Your task to perform on an android device: Open Amazon Image 0: 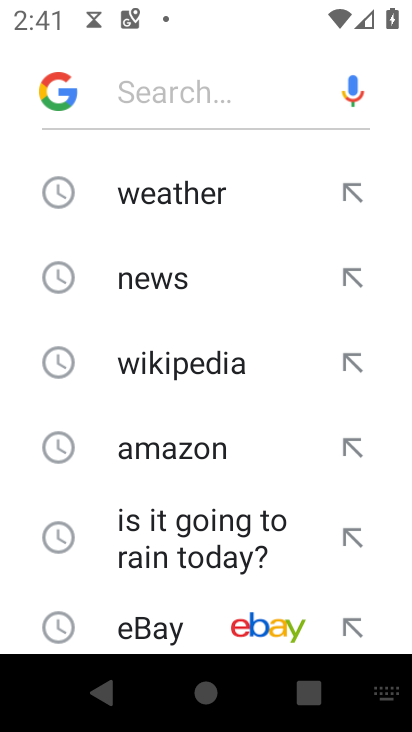
Step 0: press home button
Your task to perform on an android device: Open Amazon Image 1: 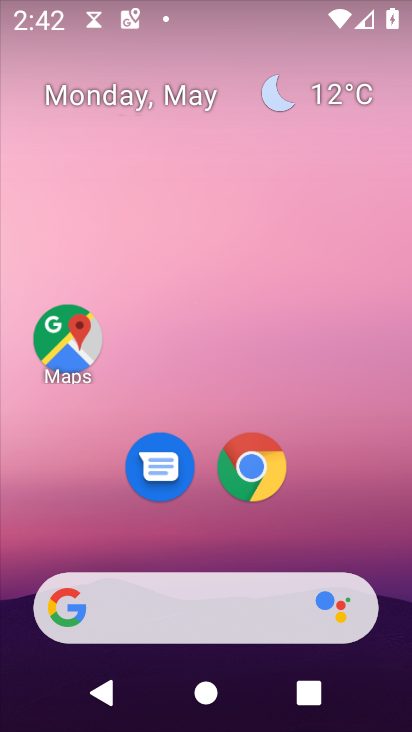
Step 1: click (253, 473)
Your task to perform on an android device: Open Amazon Image 2: 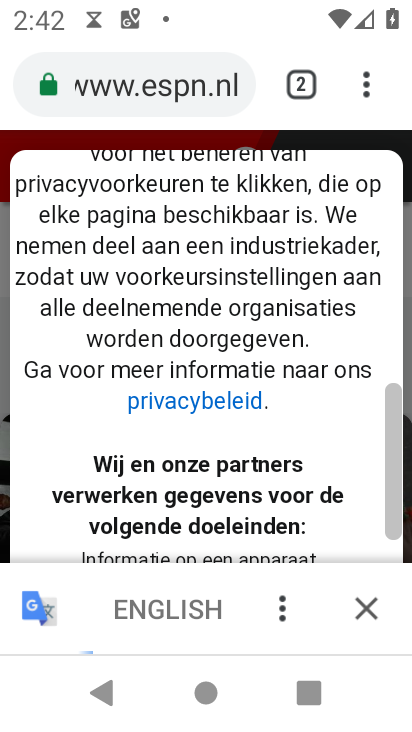
Step 2: click (370, 618)
Your task to perform on an android device: Open Amazon Image 3: 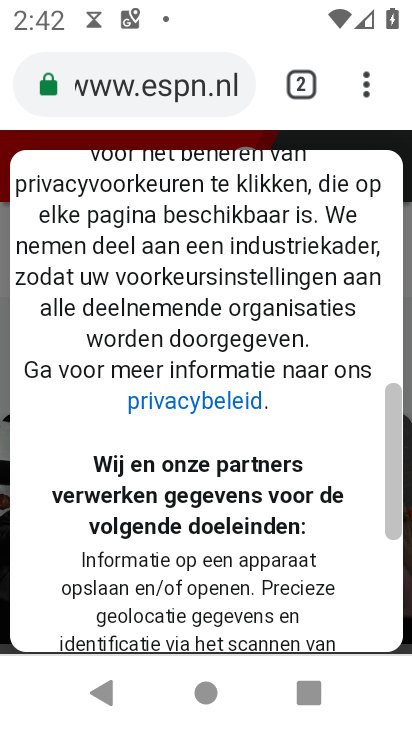
Step 3: click (316, 93)
Your task to perform on an android device: Open Amazon Image 4: 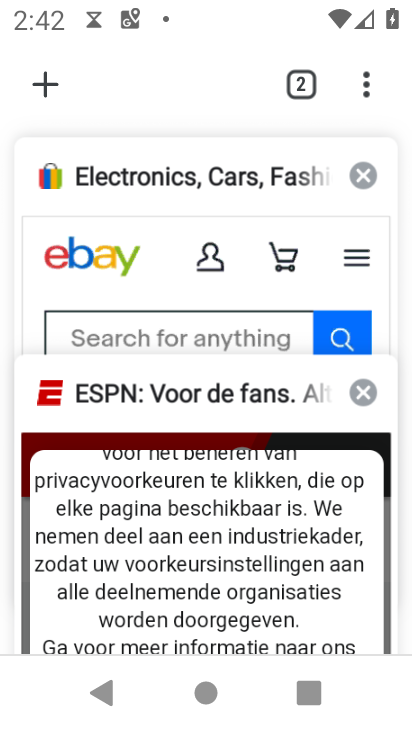
Step 4: click (52, 80)
Your task to perform on an android device: Open Amazon Image 5: 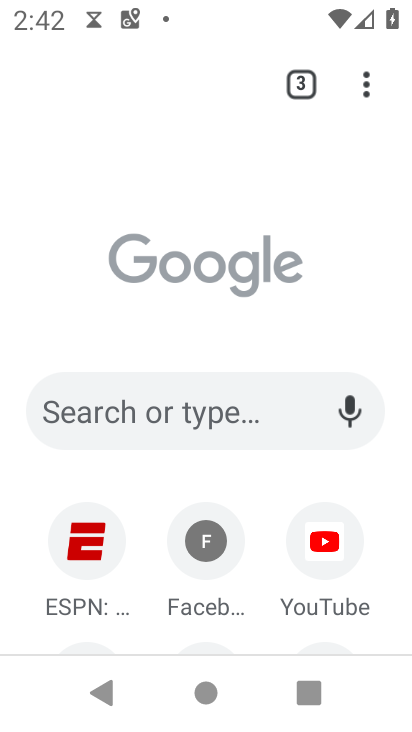
Step 5: drag from (296, 478) to (270, 139)
Your task to perform on an android device: Open Amazon Image 6: 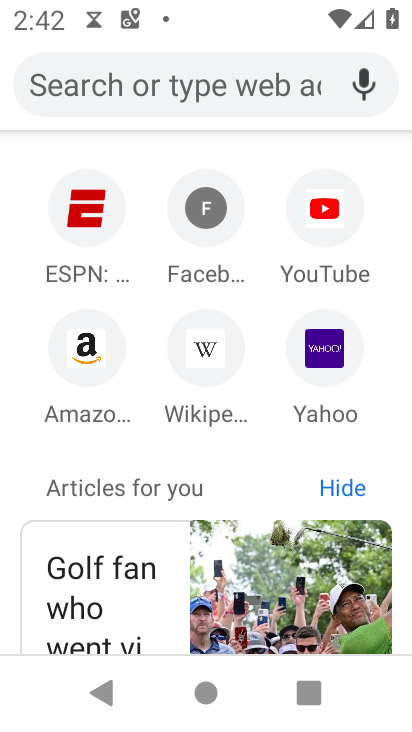
Step 6: click (90, 393)
Your task to perform on an android device: Open Amazon Image 7: 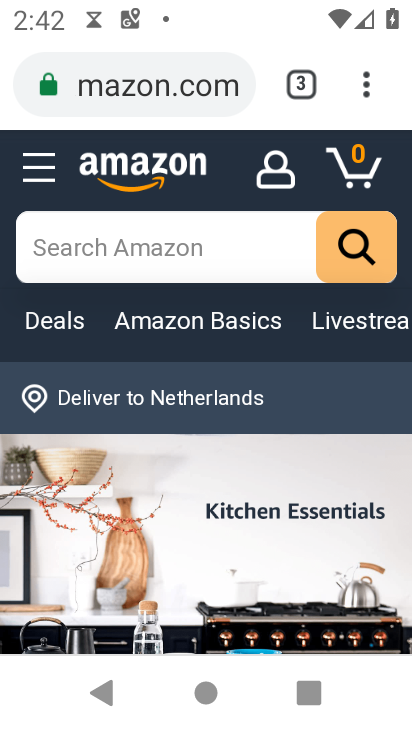
Step 7: task complete